Your task to perform on an android device: Open eBay Image 0: 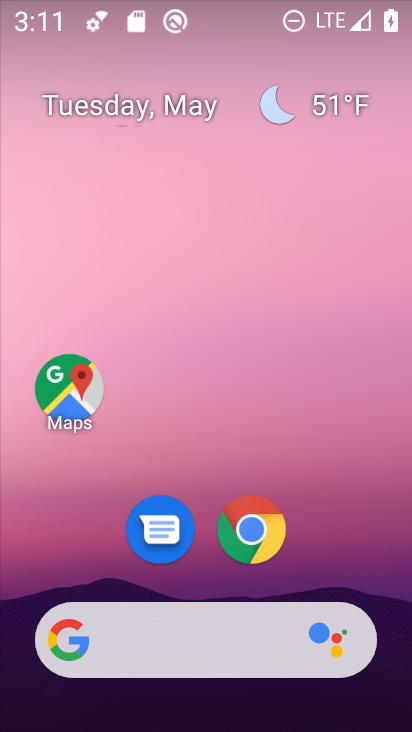
Step 0: click (264, 535)
Your task to perform on an android device: Open eBay Image 1: 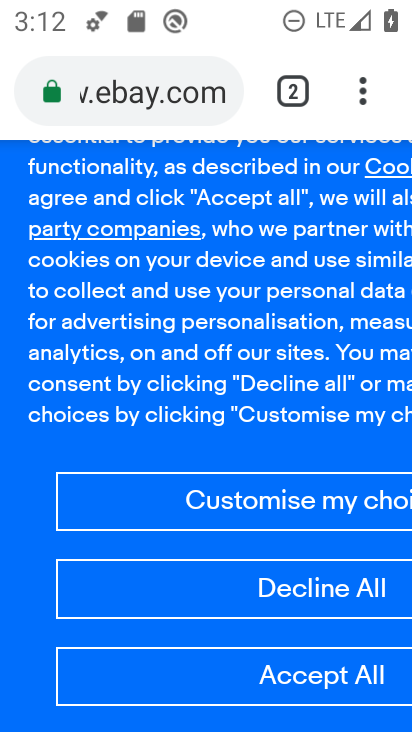
Step 1: click (292, 97)
Your task to perform on an android device: Open eBay Image 2: 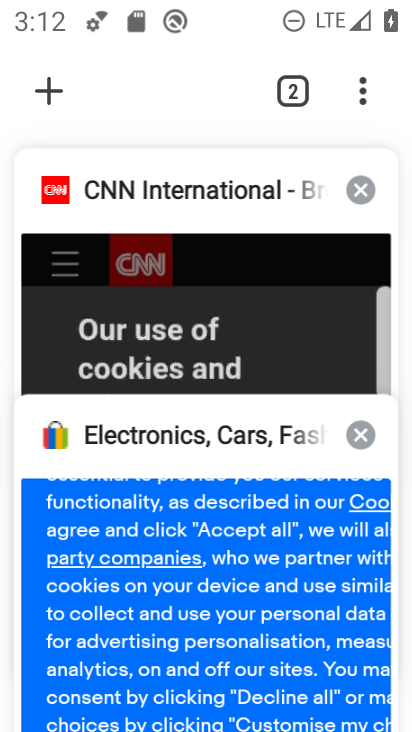
Step 2: click (161, 441)
Your task to perform on an android device: Open eBay Image 3: 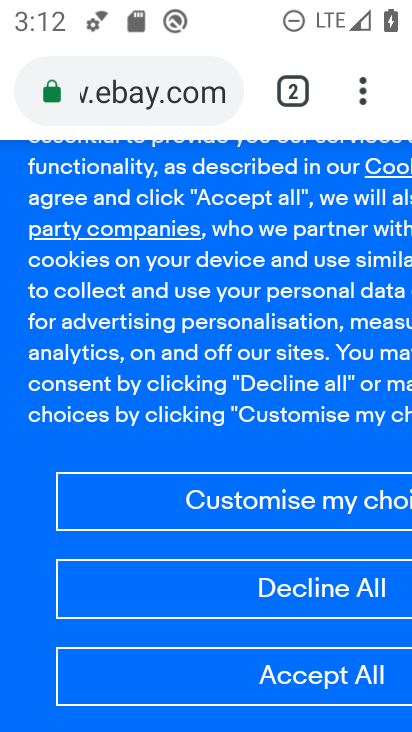
Step 3: task complete